Your task to perform on an android device: Go to network settings Image 0: 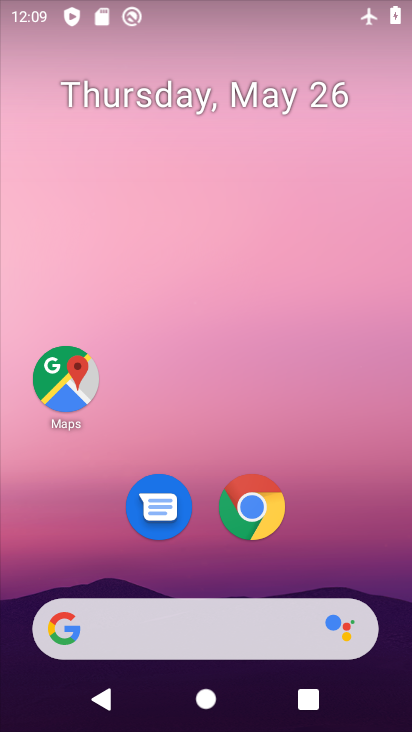
Step 0: drag from (189, 561) to (171, 96)
Your task to perform on an android device: Go to network settings Image 1: 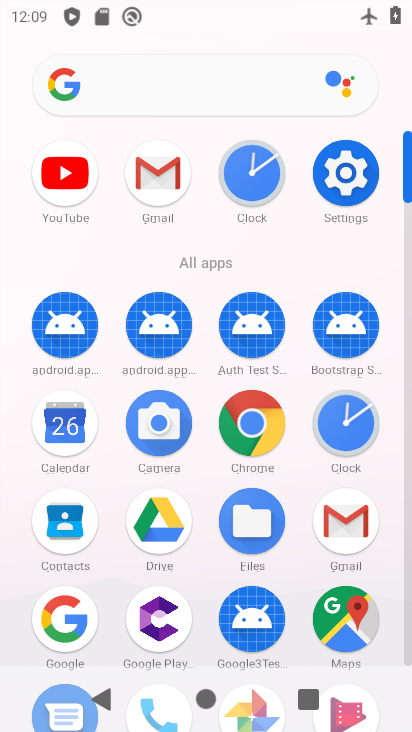
Step 1: click (333, 144)
Your task to perform on an android device: Go to network settings Image 2: 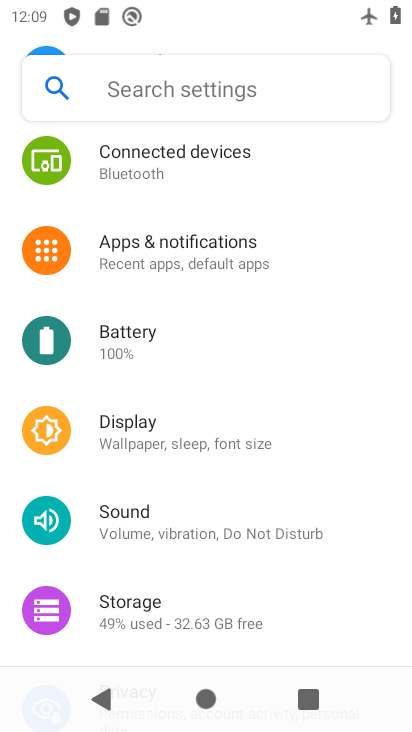
Step 2: drag from (182, 211) to (197, 558)
Your task to perform on an android device: Go to network settings Image 3: 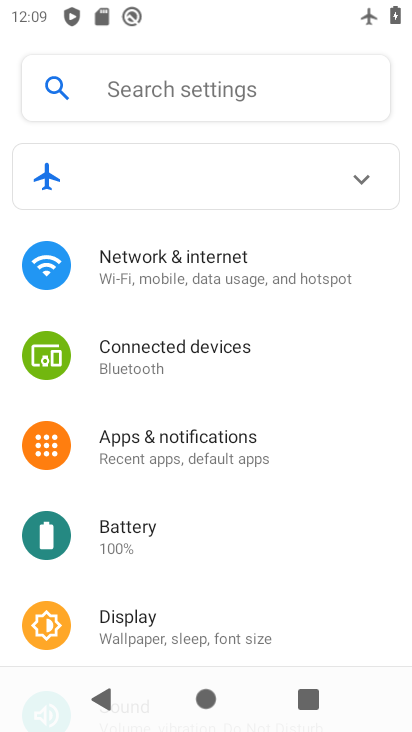
Step 3: click (210, 267)
Your task to perform on an android device: Go to network settings Image 4: 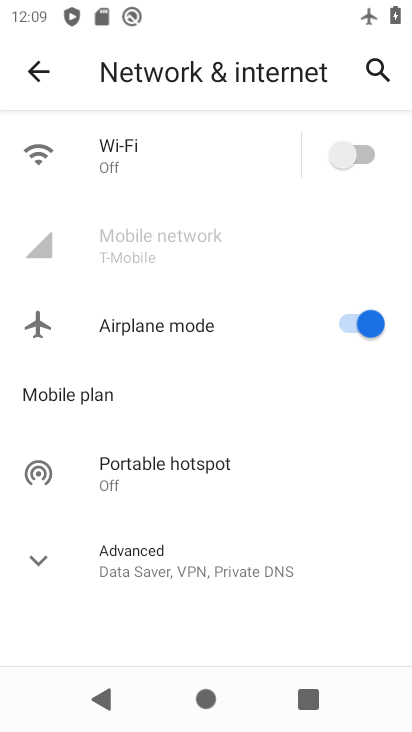
Step 4: task complete